Your task to perform on an android device: turn off sleep mode Image 0: 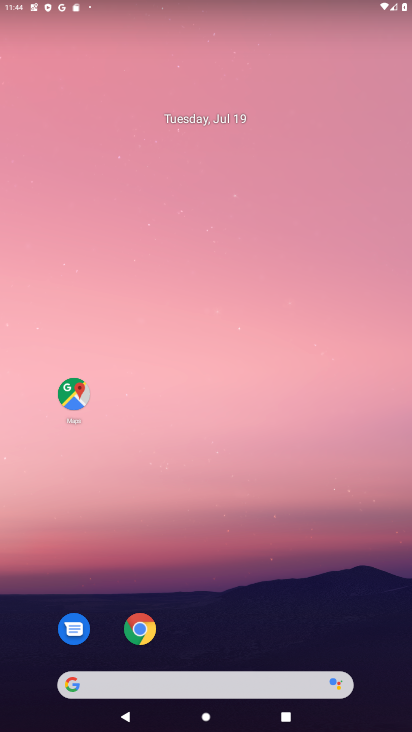
Step 0: drag from (186, 680) to (244, 39)
Your task to perform on an android device: turn off sleep mode Image 1: 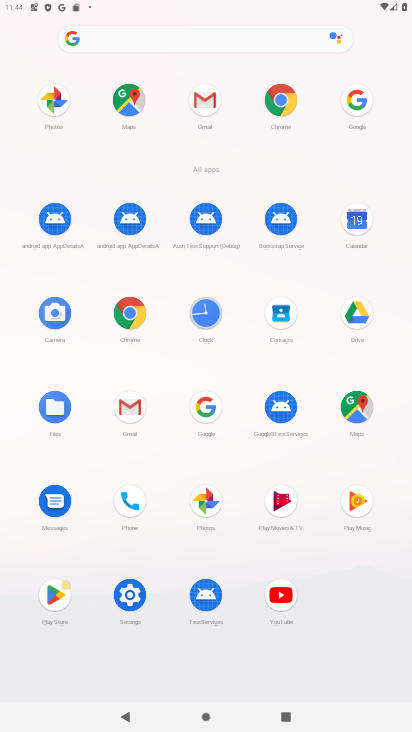
Step 1: click (129, 597)
Your task to perform on an android device: turn off sleep mode Image 2: 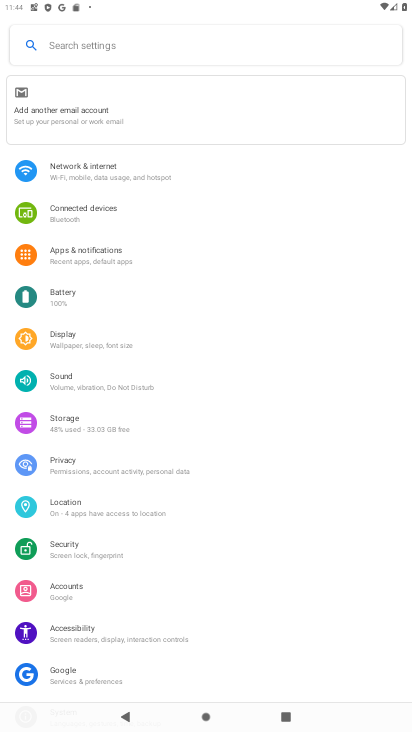
Step 2: click (97, 344)
Your task to perform on an android device: turn off sleep mode Image 3: 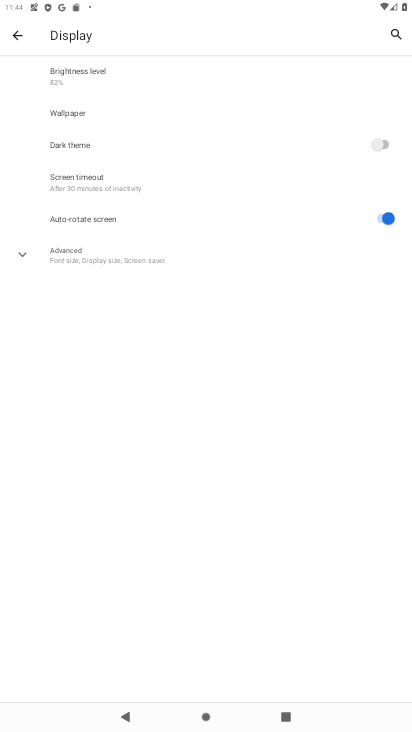
Step 3: task complete